Your task to perform on an android device: Search for sushi restaurants on Maps Image 0: 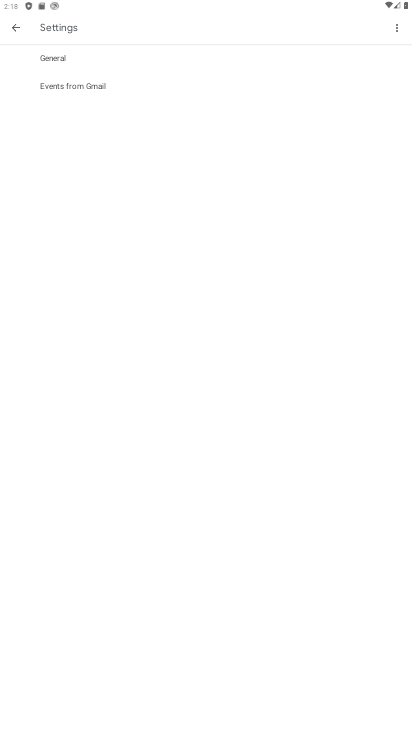
Step 0: press home button
Your task to perform on an android device: Search for sushi restaurants on Maps Image 1: 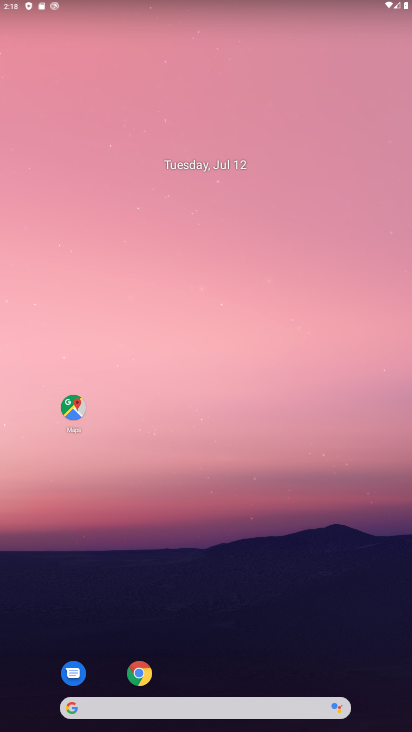
Step 1: click (69, 414)
Your task to perform on an android device: Search for sushi restaurants on Maps Image 2: 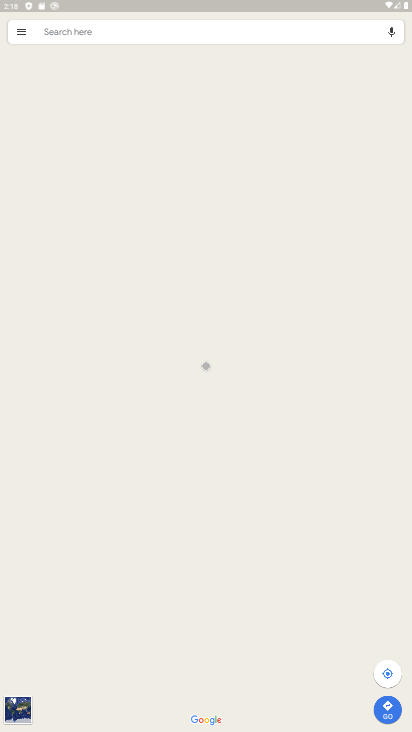
Step 2: click (106, 31)
Your task to perform on an android device: Search for sushi restaurants on Maps Image 3: 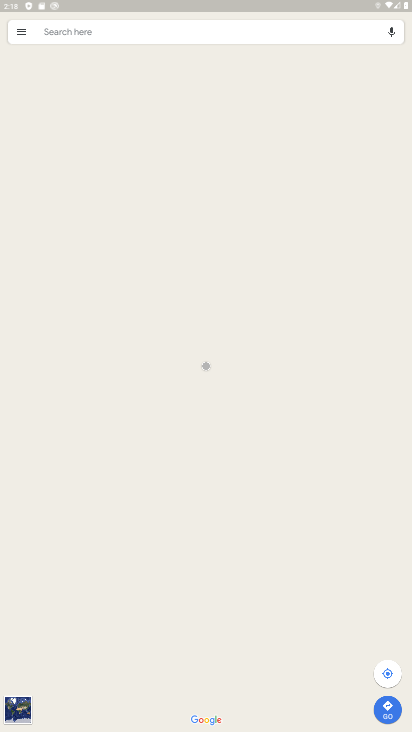
Step 3: click (58, 30)
Your task to perform on an android device: Search for sushi restaurants on Maps Image 4: 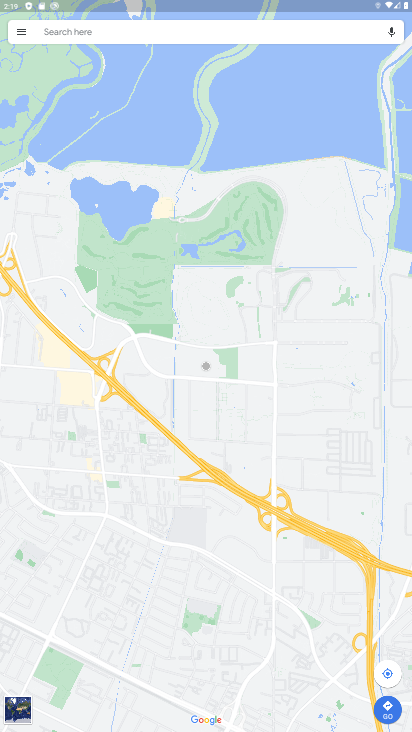
Step 4: click (79, 30)
Your task to perform on an android device: Search for sushi restaurants on Maps Image 5: 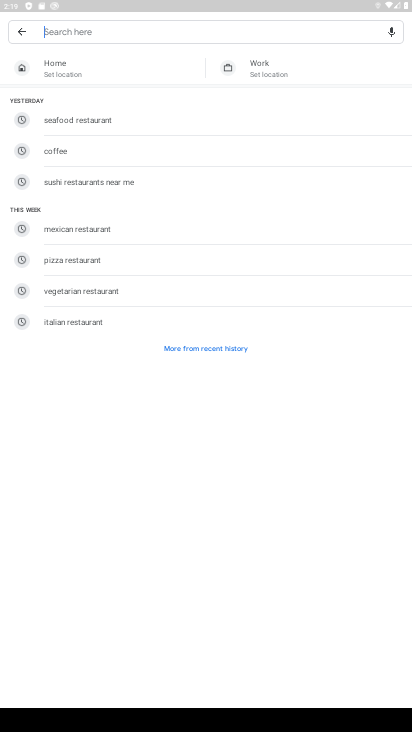
Step 5: type "sushi restaurants "
Your task to perform on an android device: Search for sushi restaurants on Maps Image 6: 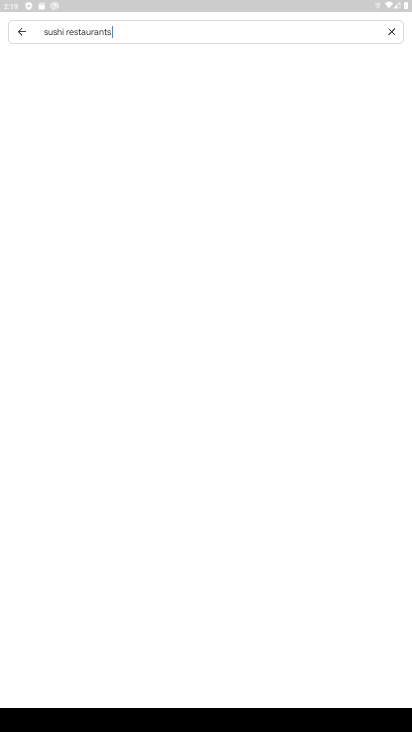
Step 6: type ""
Your task to perform on an android device: Search for sushi restaurants on Maps Image 7: 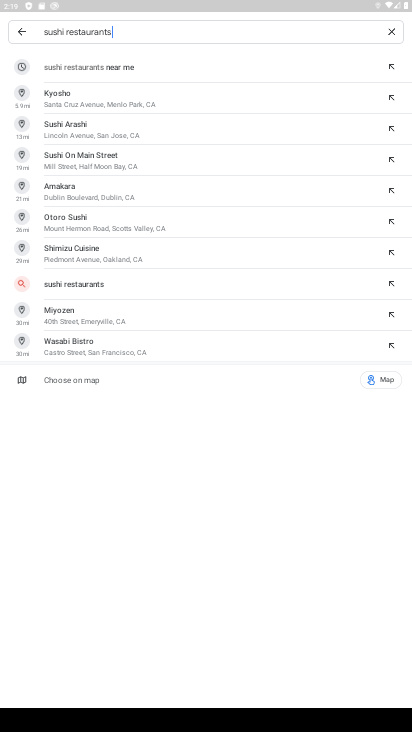
Step 7: type ""
Your task to perform on an android device: Search for sushi restaurants on Maps Image 8: 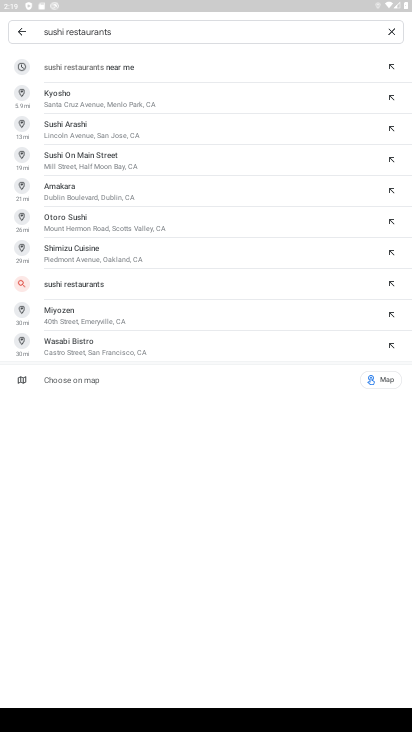
Step 8: type ""
Your task to perform on an android device: Search for sushi restaurants on Maps Image 9: 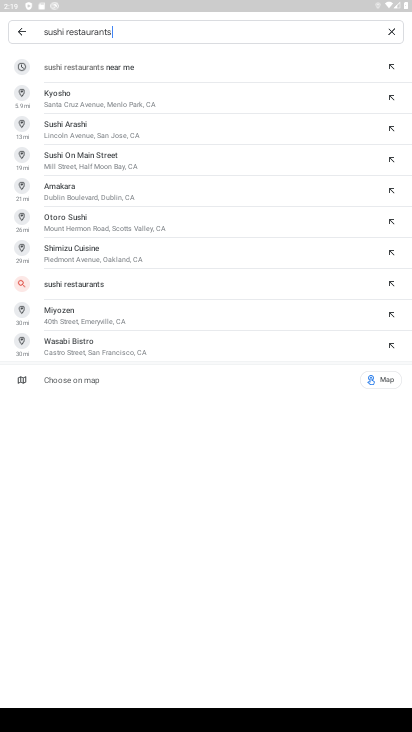
Step 9: type ""
Your task to perform on an android device: Search for sushi restaurants on Maps Image 10: 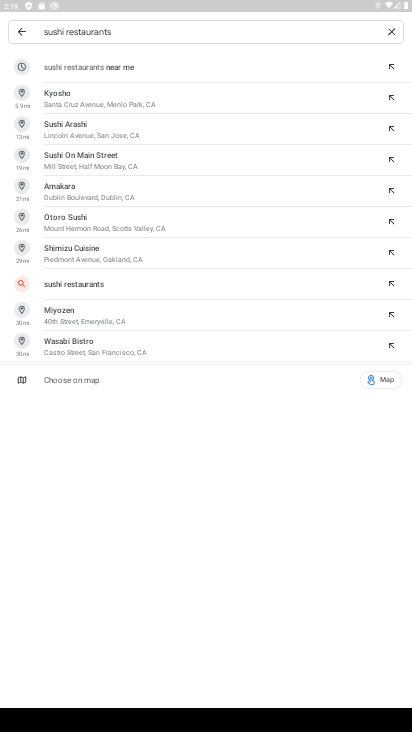
Step 10: task complete